Your task to perform on an android device: Go to settings Image 0: 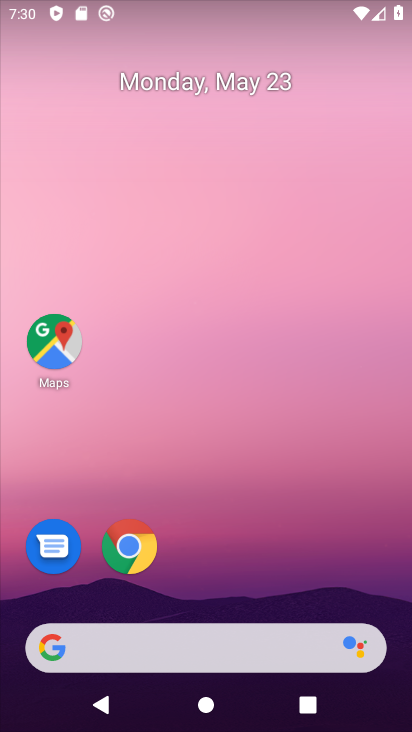
Step 0: drag from (386, 593) to (377, 247)
Your task to perform on an android device: Go to settings Image 1: 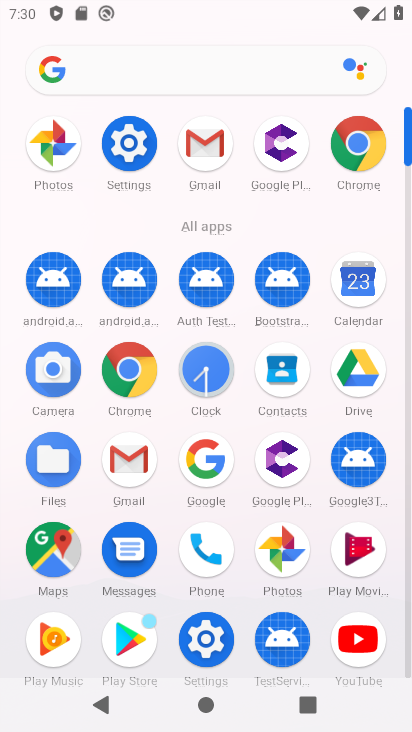
Step 1: drag from (390, 591) to (391, 420)
Your task to perform on an android device: Go to settings Image 2: 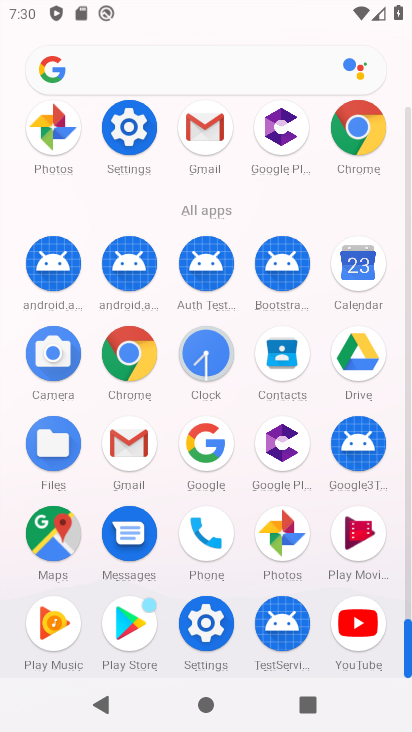
Step 2: click (196, 632)
Your task to perform on an android device: Go to settings Image 3: 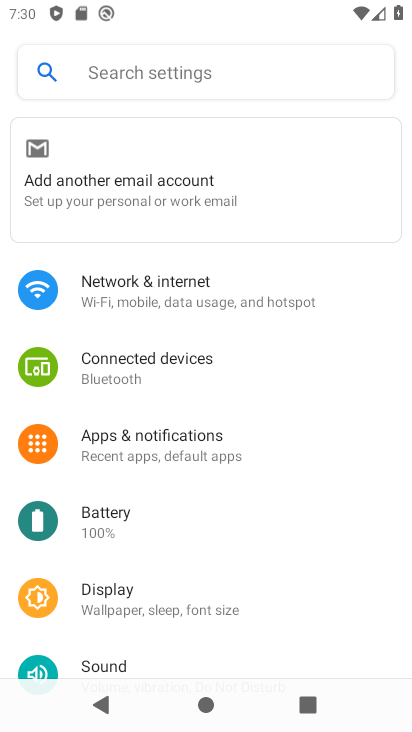
Step 3: task complete